Your task to perform on an android device: turn off translation in the chrome app Image 0: 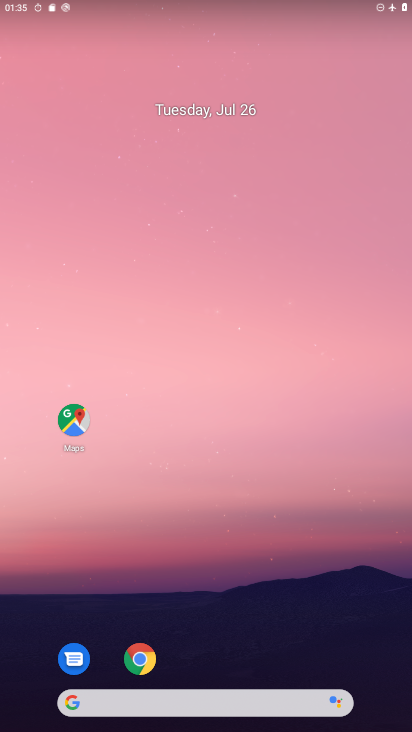
Step 0: click (138, 657)
Your task to perform on an android device: turn off translation in the chrome app Image 1: 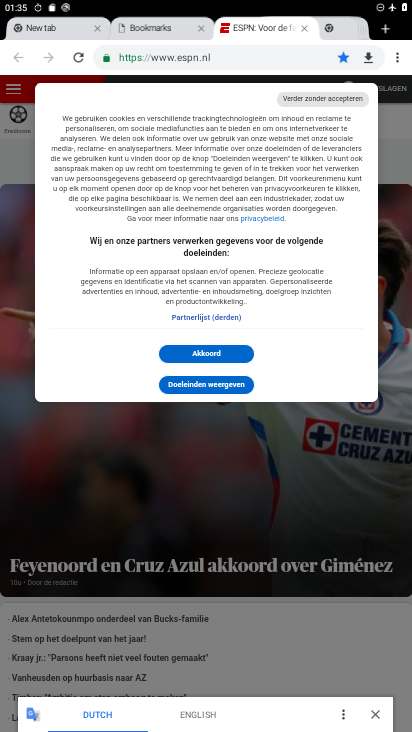
Step 1: click (402, 54)
Your task to perform on an android device: turn off translation in the chrome app Image 2: 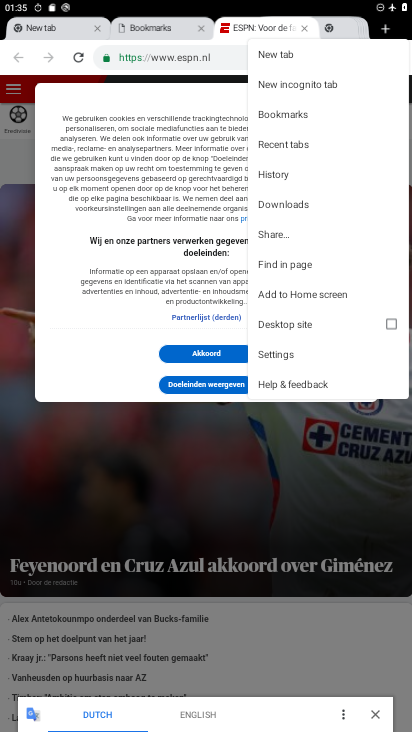
Step 2: click (286, 359)
Your task to perform on an android device: turn off translation in the chrome app Image 3: 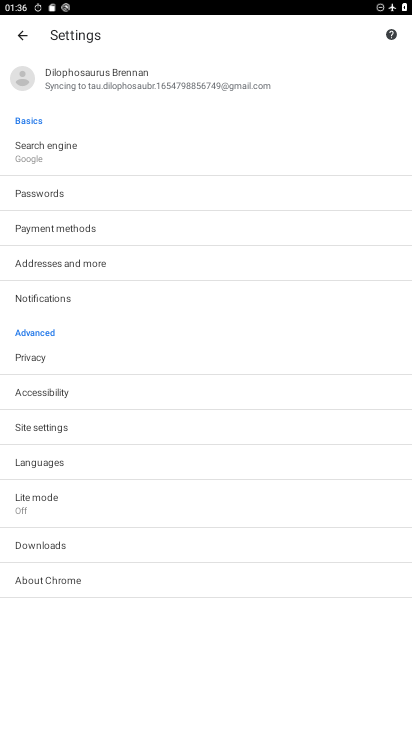
Step 3: click (47, 457)
Your task to perform on an android device: turn off translation in the chrome app Image 4: 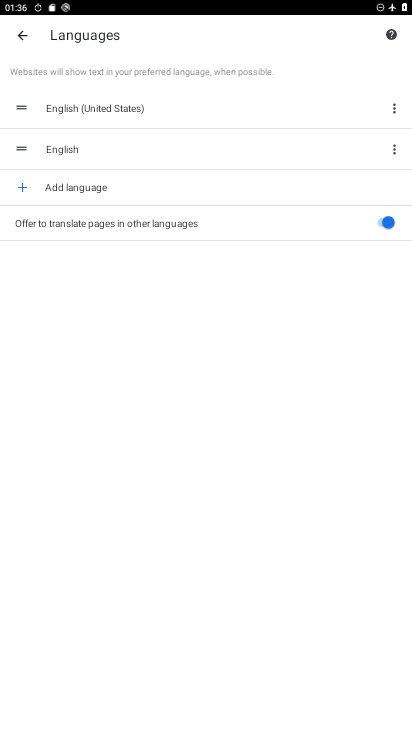
Step 4: click (389, 216)
Your task to perform on an android device: turn off translation in the chrome app Image 5: 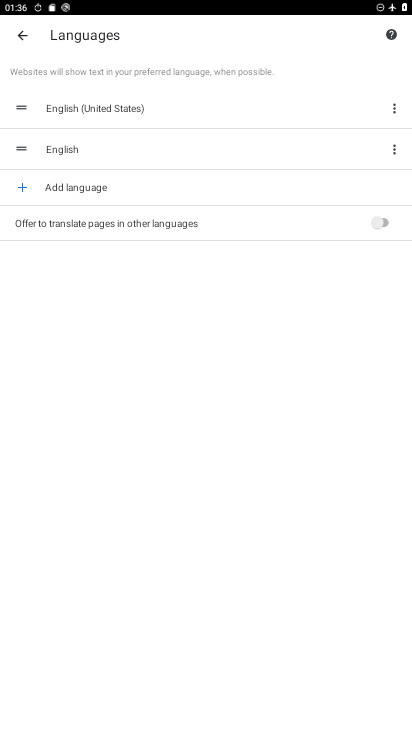
Step 5: task complete